Your task to perform on an android device: Open Google Chrome and click the shortcut for Amazon.com Image 0: 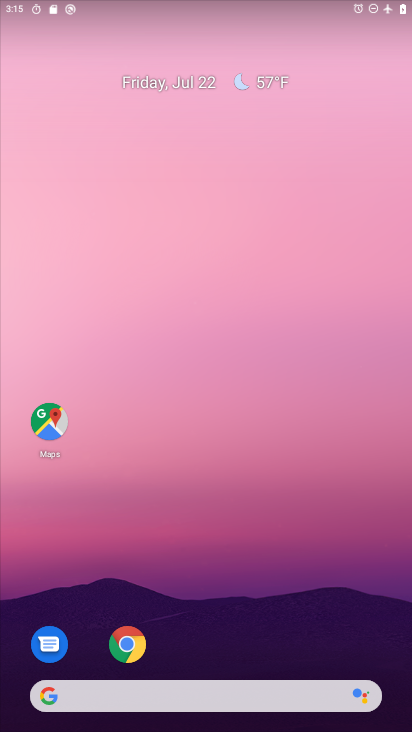
Step 0: click (112, 633)
Your task to perform on an android device: Open Google Chrome and click the shortcut for Amazon.com Image 1: 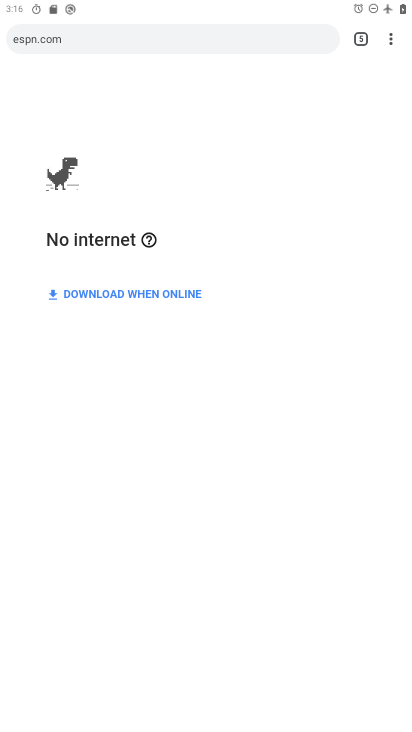
Step 1: click (362, 46)
Your task to perform on an android device: Open Google Chrome and click the shortcut for Amazon.com Image 2: 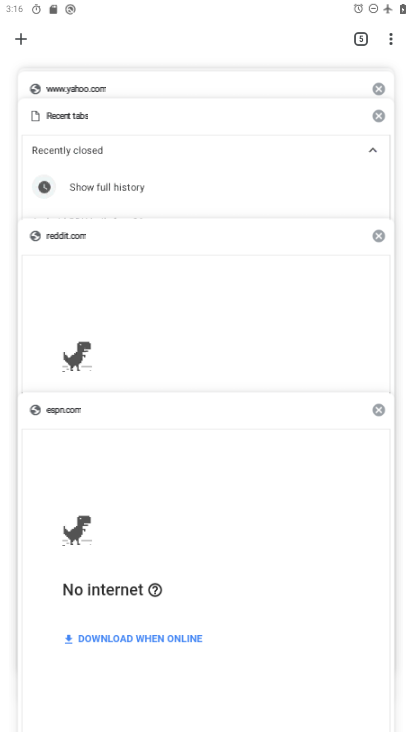
Step 2: click (25, 32)
Your task to perform on an android device: Open Google Chrome and click the shortcut for Amazon.com Image 3: 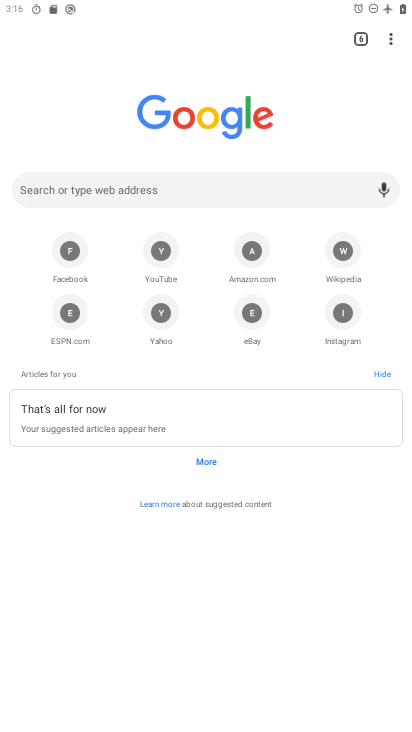
Step 3: click (247, 253)
Your task to perform on an android device: Open Google Chrome and click the shortcut for Amazon.com Image 4: 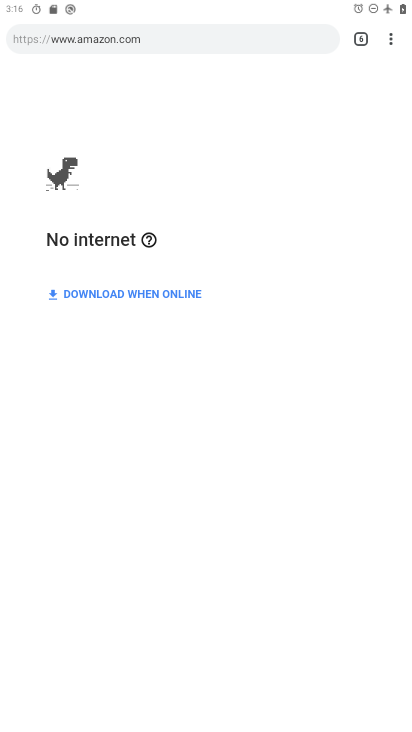
Step 4: task complete